Your task to perform on an android device: delete the emails in spam in the gmail app Image 0: 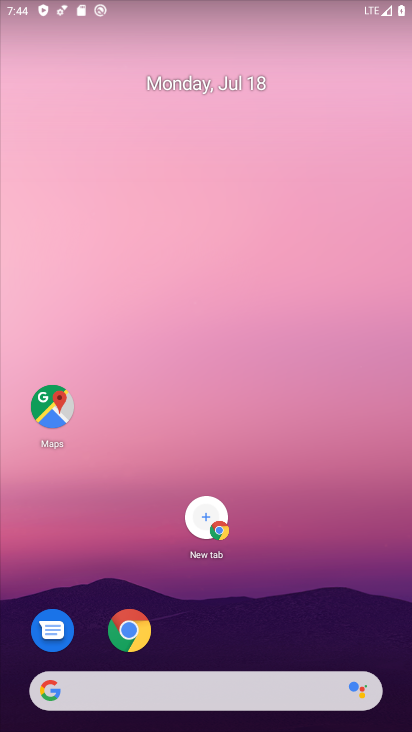
Step 0: drag from (219, 645) to (254, 349)
Your task to perform on an android device: delete the emails in spam in the gmail app Image 1: 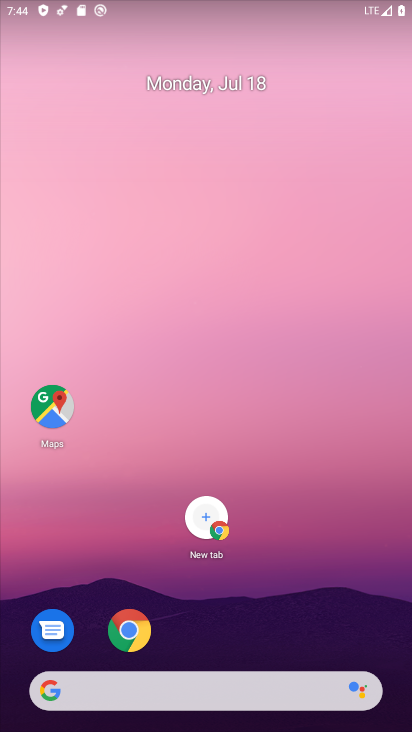
Step 1: drag from (209, 676) to (249, 158)
Your task to perform on an android device: delete the emails in spam in the gmail app Image 2: 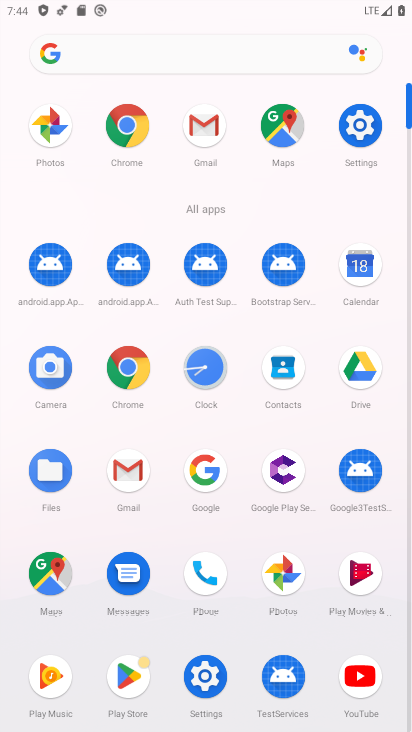
Step 2: click (110, 471)
Your task to perform on an android device: delete the emails in spam in the gmail app Image 3: 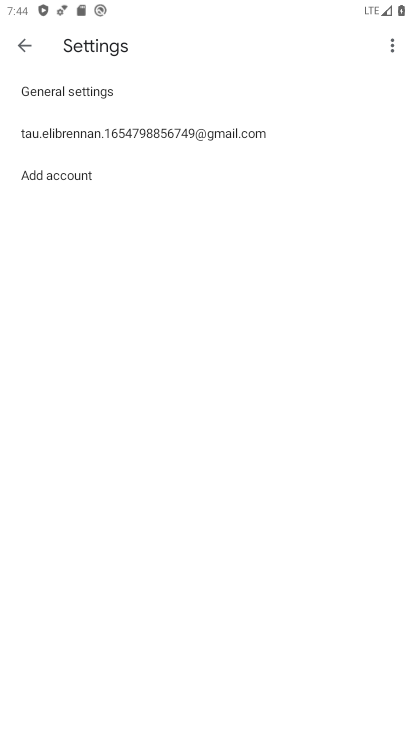
Step 3: click (22, 47)
Your task to perform on an android device: delete the emails in spam in the gmail app Image 4: 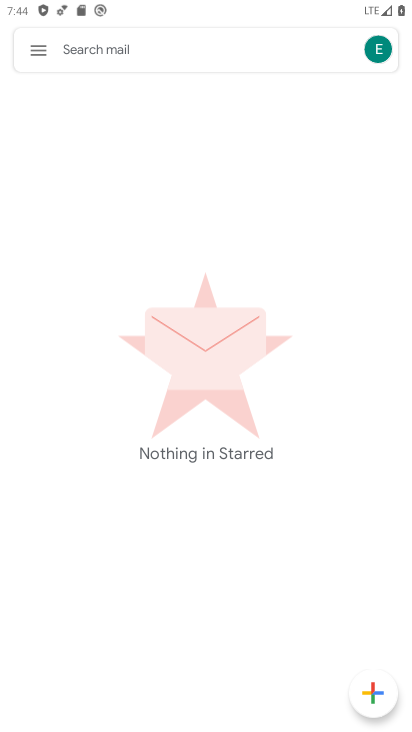
Step 4: click (40, 57)
Your task to perform on an android device: delete the emails in spam in the gmail app Image 5: 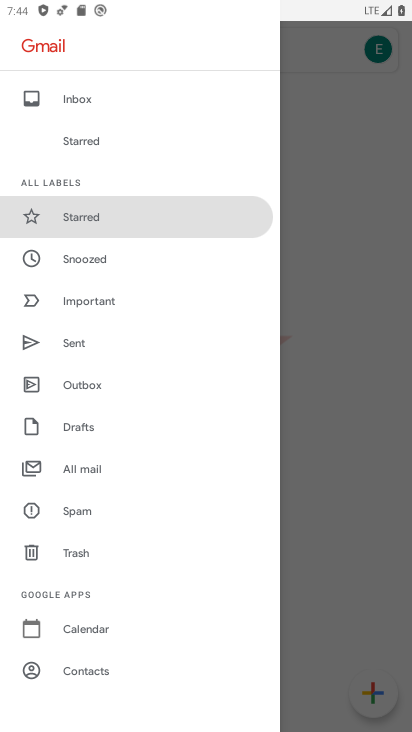
Step 5: click (80, 515)
Your task to perform on an android device: delete the emails in spam in the gmail app Image 6: 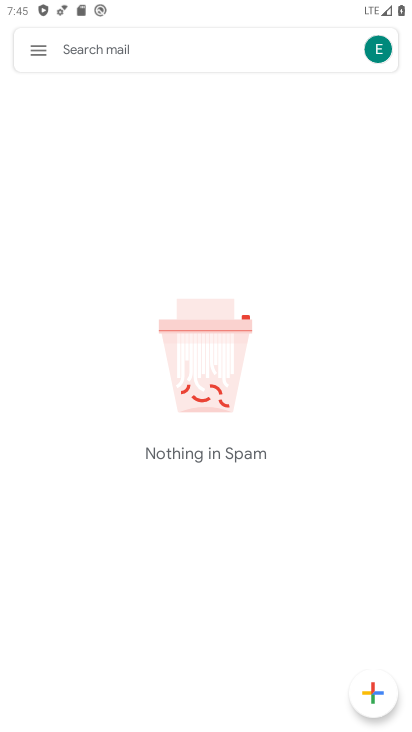
Step 6: task complete